Your task to perform on an android device: allow notifications from all sites in the chrome app Image 0: 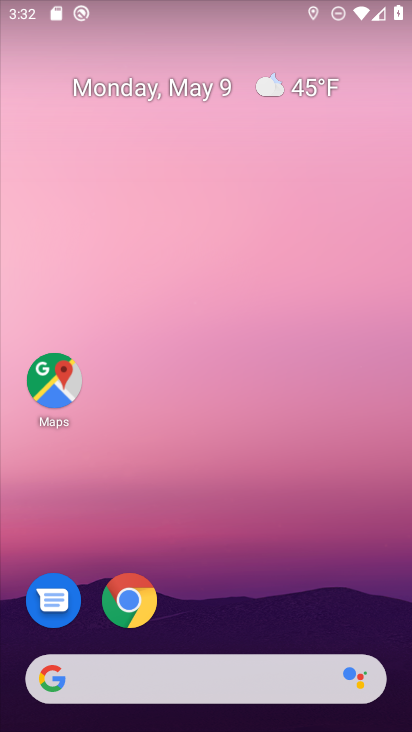
Step 0: click (144, 603)
Your task to perform on an android device: allow notifications from all sites in the chrome app Image 1: 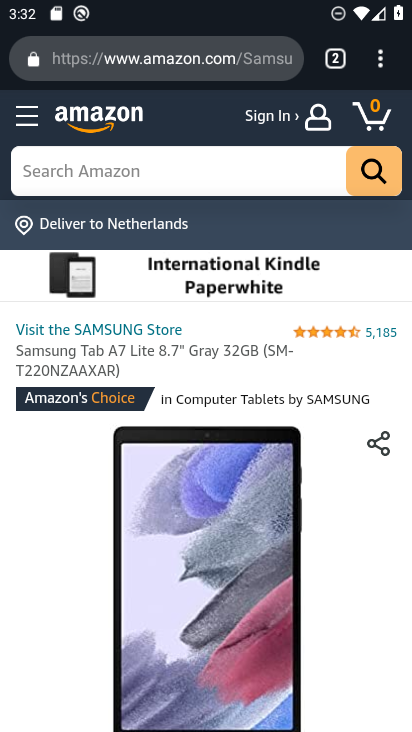
Step 1: click (374, 62)
Your task to perform on an android device: allow notifications from all sites in the chrome app Image 2: 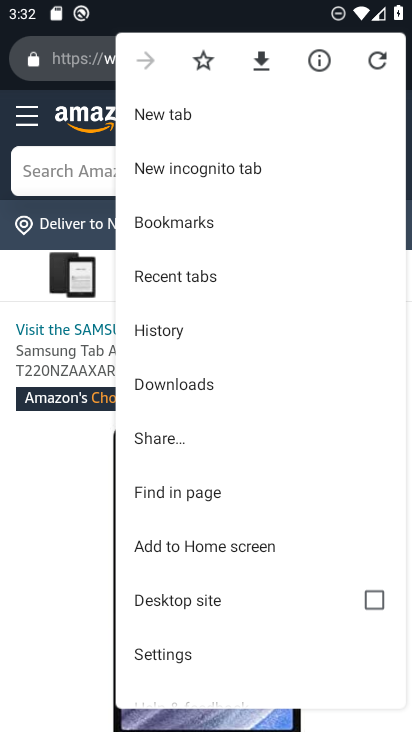
Step 2: click (165, 653)
Your task to perform on an android device: allow notifications from all sites in the chrome app Image 3: 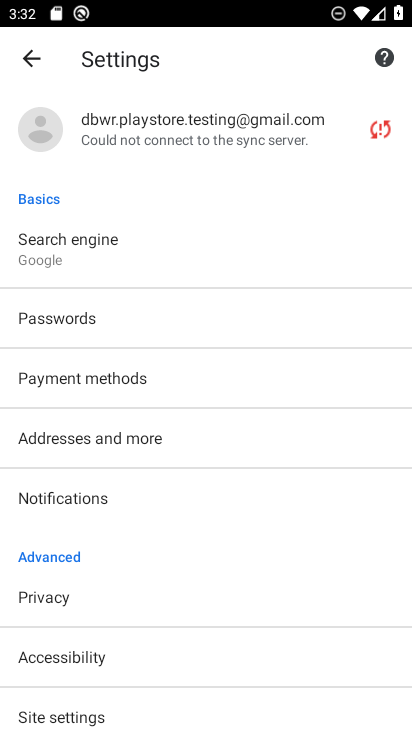
Step 3: drag from (73, 635) to (113, 423)
Your task to perform on an android device: allow notifications from all sites in the chrome app Image 4: 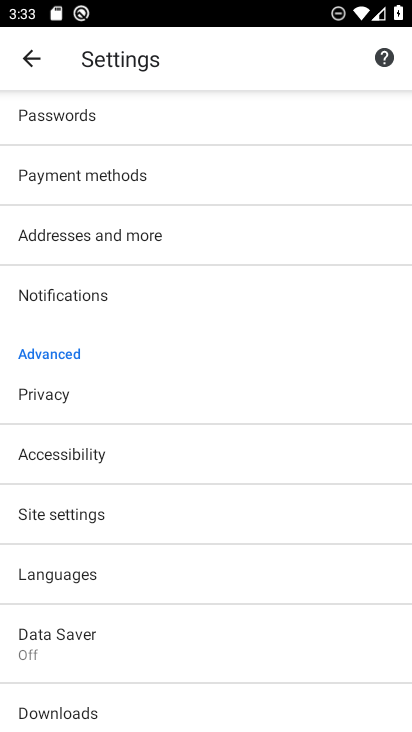
Step 4: click (103, 301)
Your task to perform on an android device: allow notifications from all sites in the chrome app Image 5: 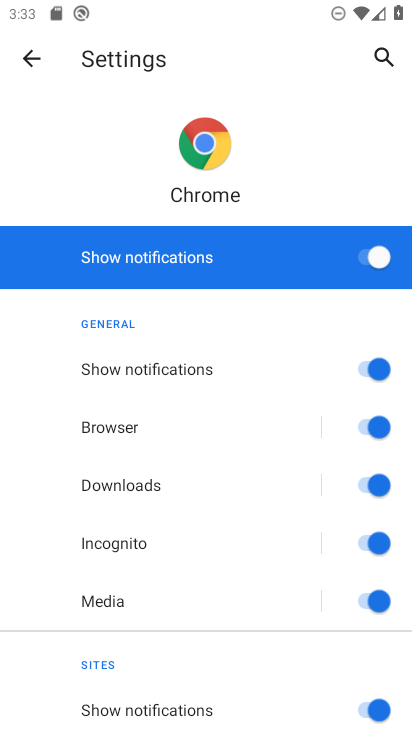
Step 5: task complete